Your task to perform on an android device: turn on sleep mode Image 0: 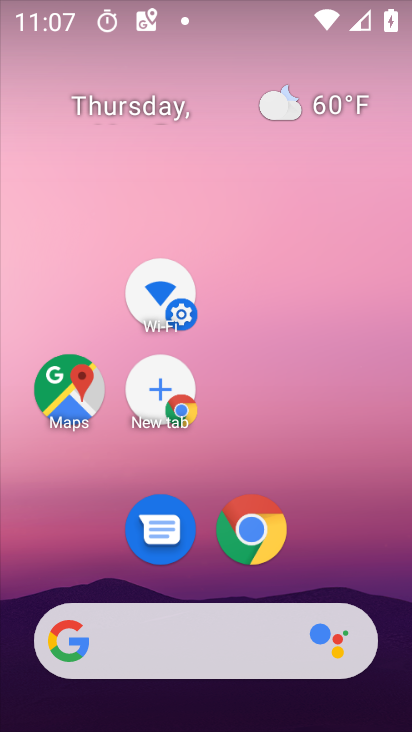
Step 0: drag from (299, 569) to (203, 117)
Your task to perform on an android device: turn on sleep mode Image 1: 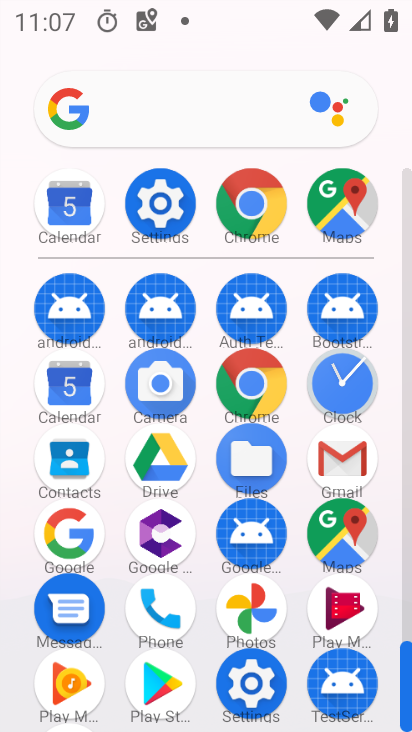
Step 1: click (149, 204)
Your task to perform on an android device: turn on sleep mode Image 2: 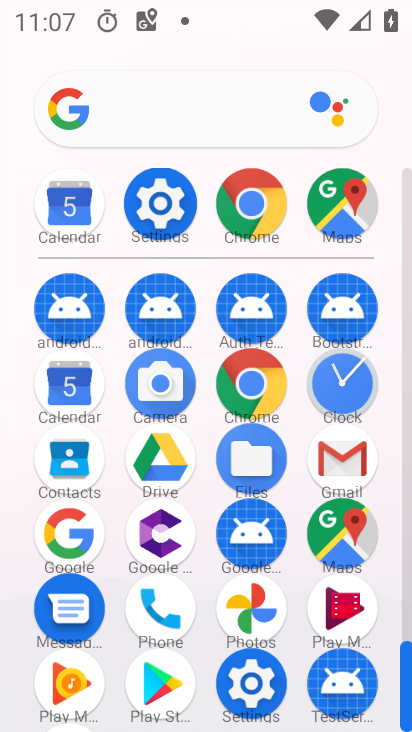
Step 2: click (149, 204)
Your task to perform on an android device: turn on sleep mode Image 3: 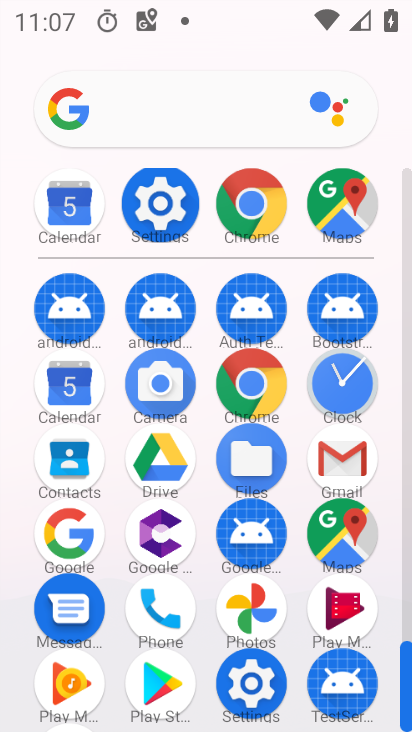
Step 3: click (150, 204)
Your task to perform on an android device: turn on sleep mode Image 4: 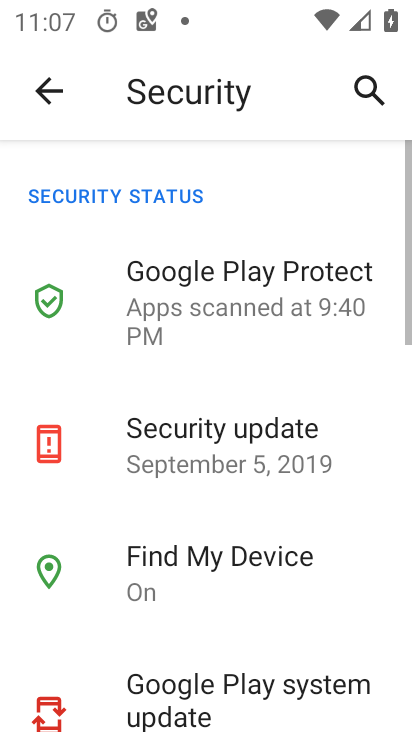
Step 4: click (38, 85)
Your task to perform on an android device: turn on sleep mode Image 5: 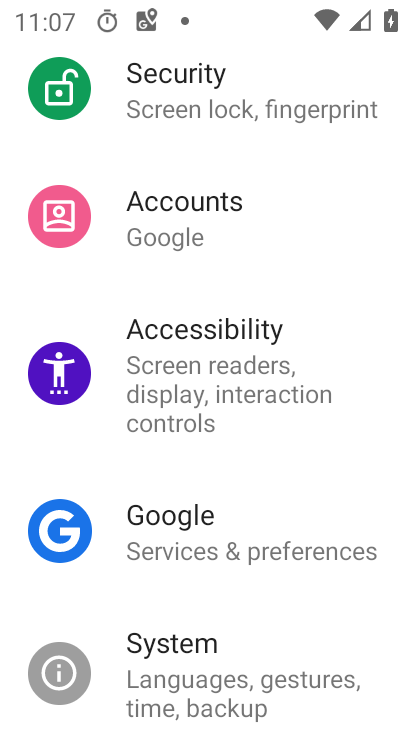
Step 5: drag from (185, 176) to (293, 621)
Your task to perform on an android device: turn on sleep mode Image 6: 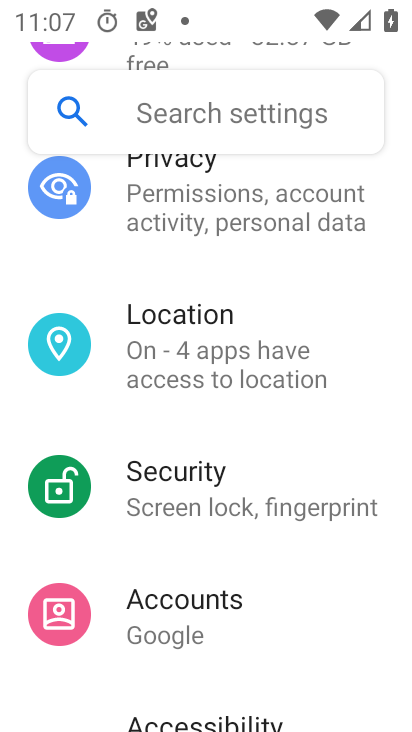
Step 6: drag from (181, 269) to (277, 626)
Your task to perform on an android device: turn on sleep mode Image 7: 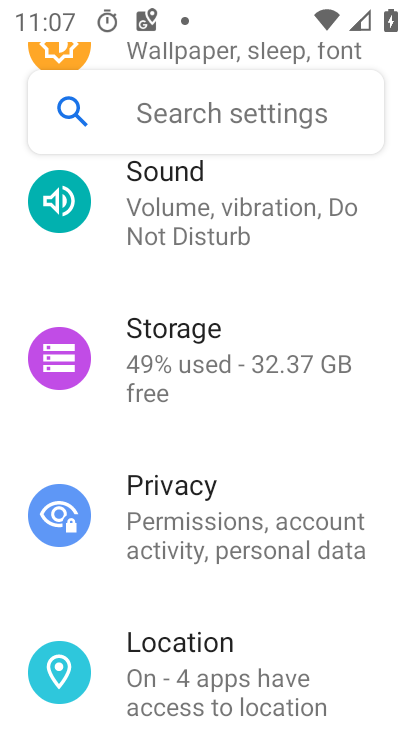
Step 7: drag from (179, 303) to (220, 670)
Your task to perform on an android device: turn on sleep mode Image 8: 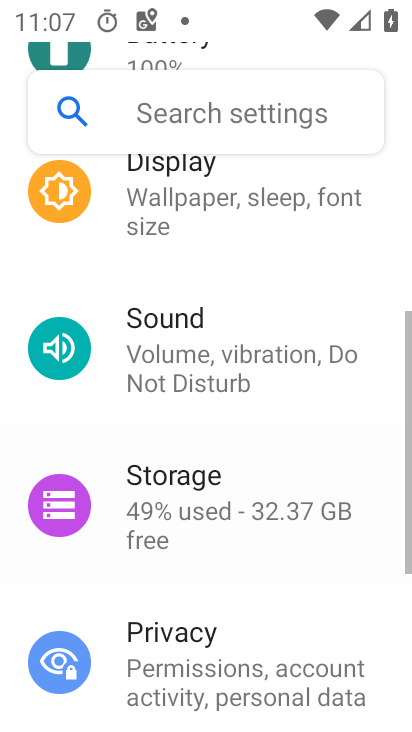
Step 8: drag from (99, 320) to (210, 621)
Your task to perform on an android device: turn on sleep mode Image 9: 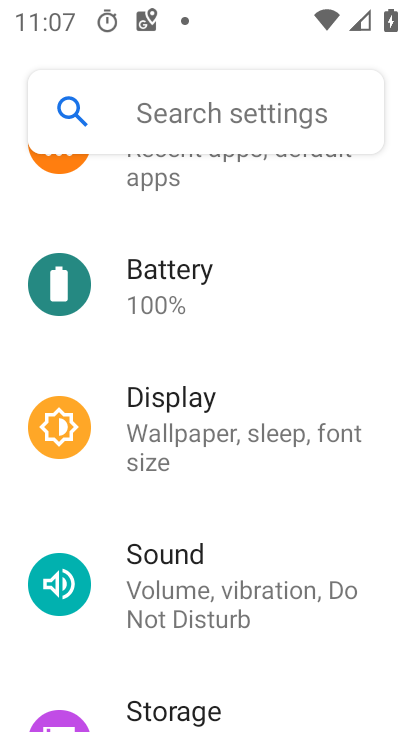
Step 9: click (209, 430)
Your task to perform on an android device: turn on sleep mode Image 10: 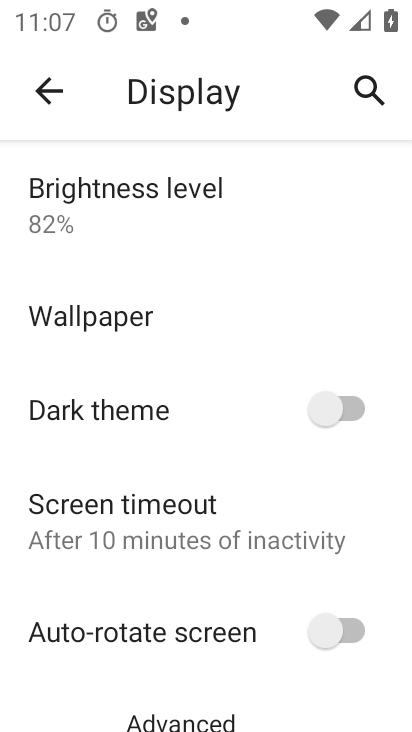
Step 10: task complete